Your task to perform on an android device: choose inbox layout in the gmail app Image 0: 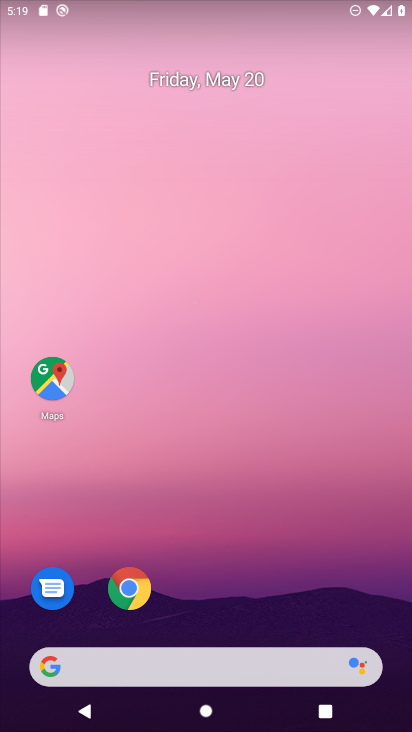
Step 0: drag from (243, 616) to (251, 380)
Your task to perform on an android device: choose inbox layout in the gmail app Image 1: 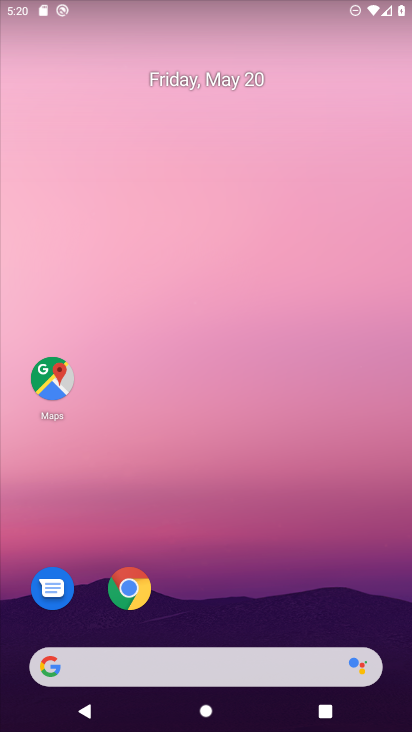
Step 1: drag from (205, 630) to (248, 322)
Your task to perform on an android device: choose inbox layout in the gmail app Image 2: 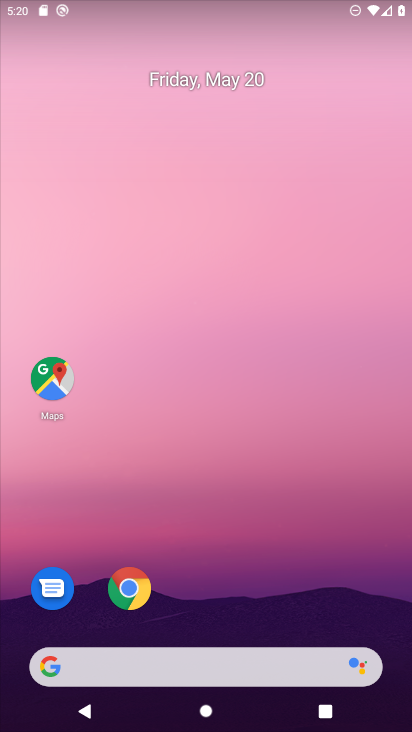
Step 2: drag from (237, 489) to (280, 211)
Your task to perform on an android device: choose inbox layout in the gmail app Image 3: 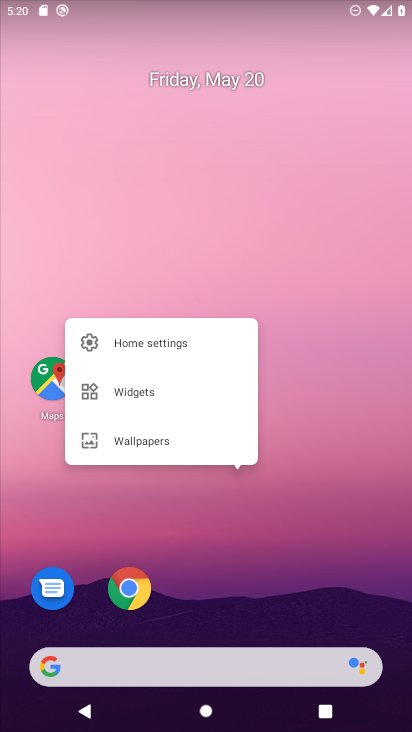
Step 3: click (219, 519)
Your task to perform on an android device: choose inbox layout in the gmail app Image 4: 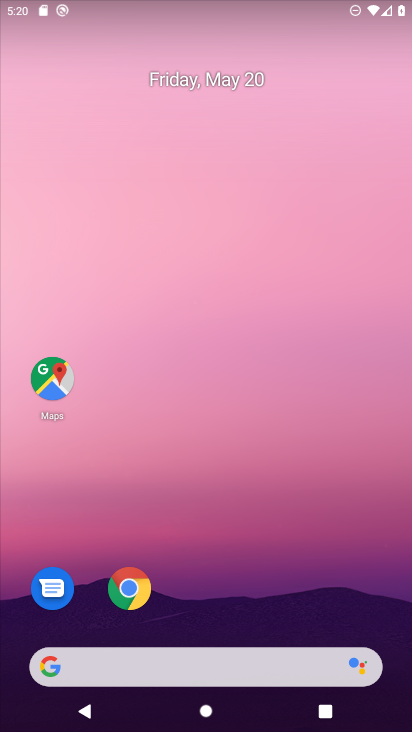
Step 4: drag from (229, 615) to (201, 176)
Your task to perform on an android device: choose inbox layout in the gmail app Image 5: 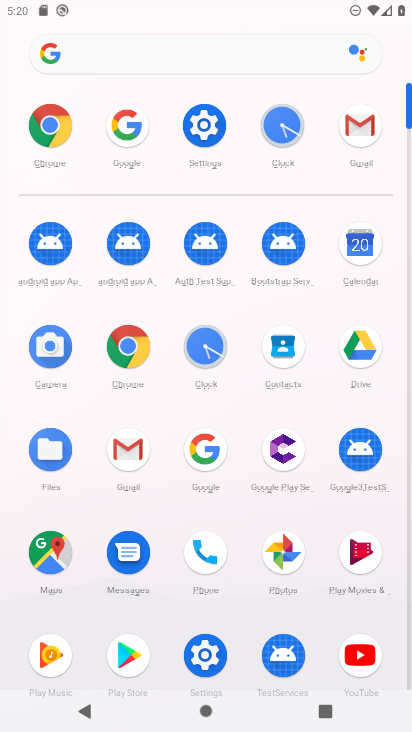
Step 5: click (130, 452)
Your task to perform on an android device: choose inbox layout in the gmail app Image 6: 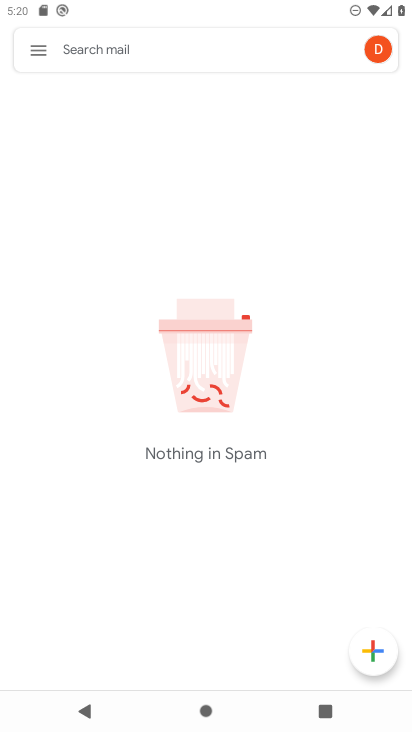
Step 6: click (31, 51)
Your task to perform on an android device: choose inbox layout in the gmail app Image 7: 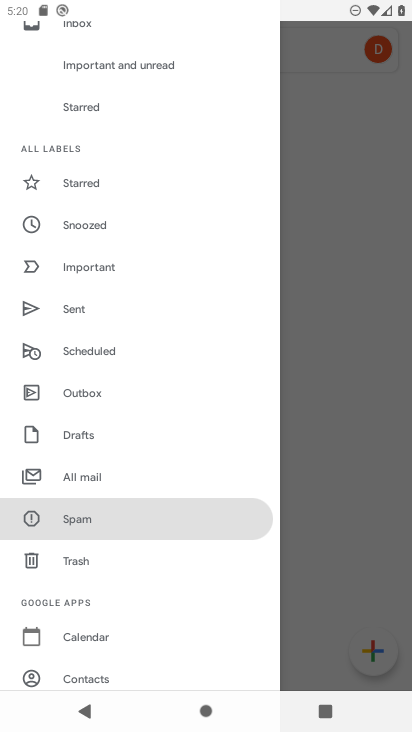
Step 7: drag from (108, 654) to (135, 513)
Your task to perform on an android device: choose inbox layout in the gmail app Image 8: 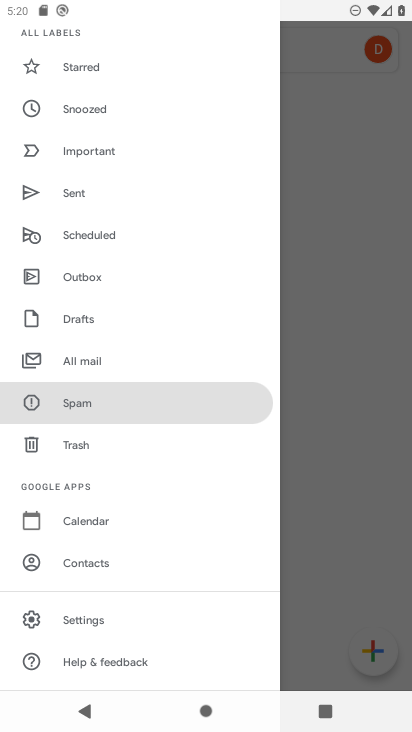
Step 8: click (88, 627)
Your task to perform on an android device: choose inbox layout in the gmail app Image 9: 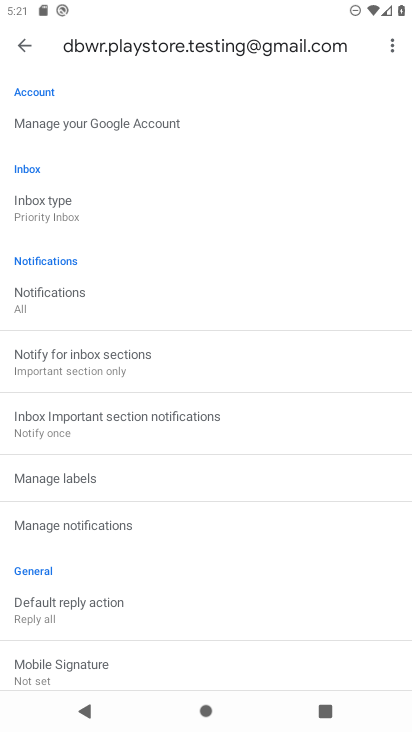
Step 9: click (58, 212)
Your task to perform on an android device: choose inbox layout in the gmail app Image 10: 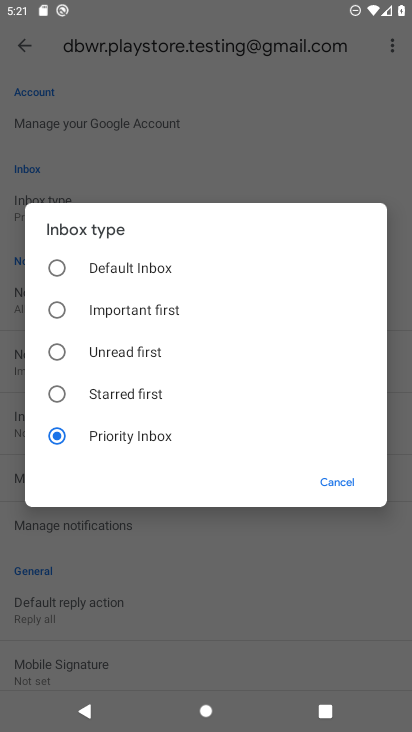
Step 10: click (59, 269)
Your task to perform on an android device: choose inbox layout in the gmail app Image 11: 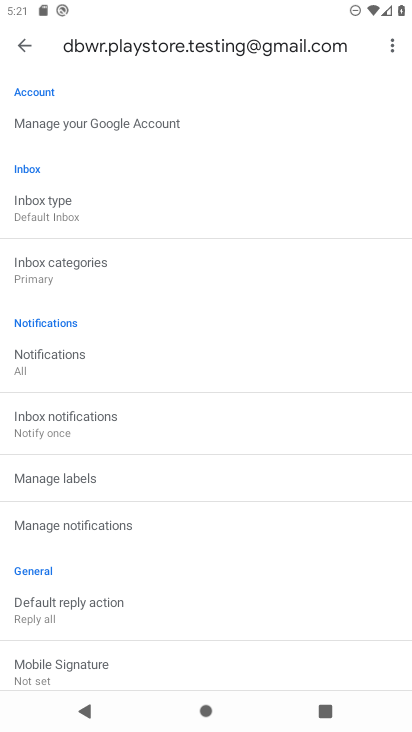
Step 11: task complete